Your task to perform on an android device: see tabs open on other devices in the chrome app Image 0: 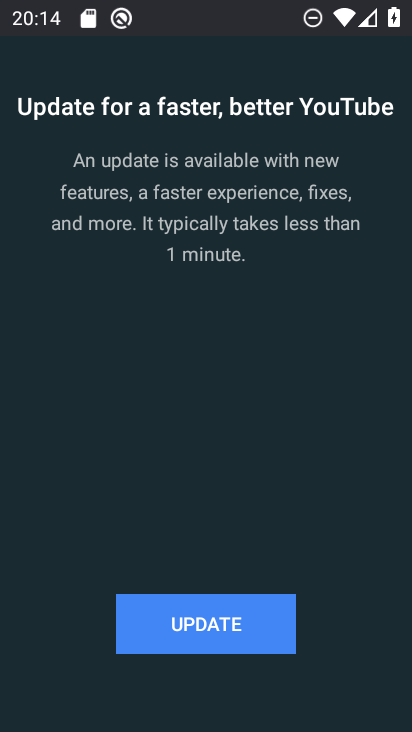
Step 0: press home button
Your task to perform on an android device: see tabs open on other devices in the chrome app Image 1: 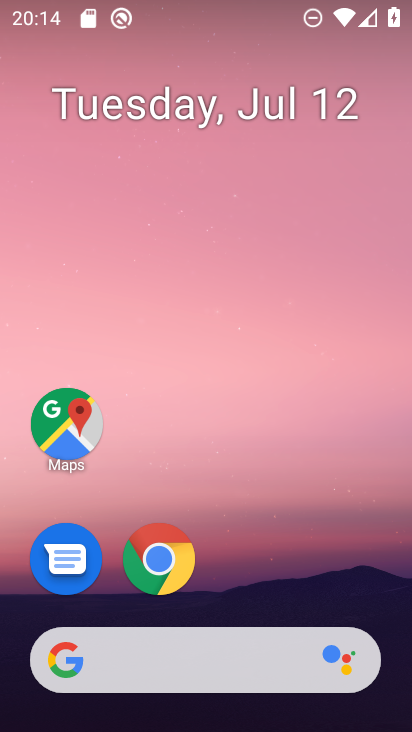
Step 1: drag from (368, 582) to (365, 101)
Your task to perform on an android device: see tabs open on other devices in the chrome app Image 2: 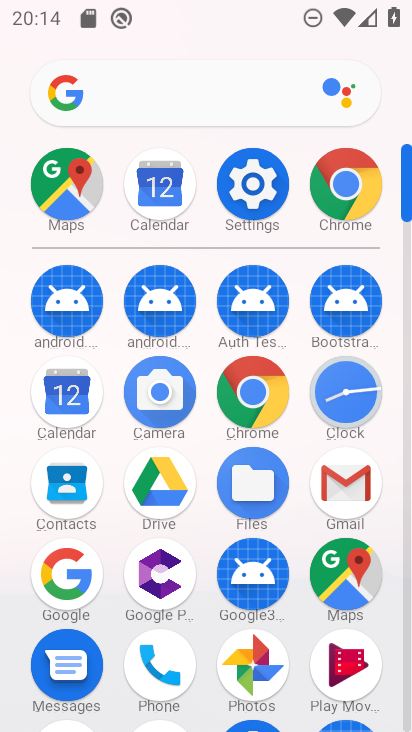
Step 2: click (257, 396)
Your task to perform on an android device: see tabs open on other devices in the chrome app Image 3: 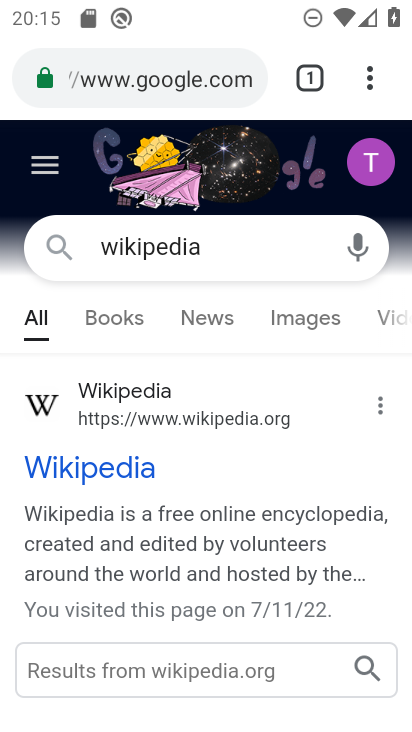
Step 3: click (372, 84)
Your task to perform on an android device: see tabs open on other devices in the chrome app Image 4: 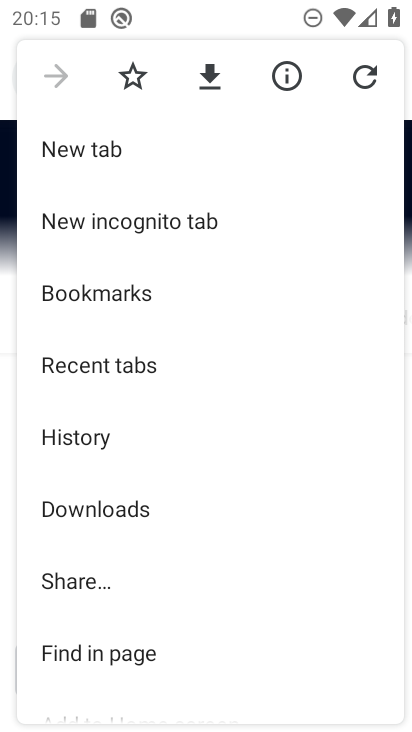
Step 4: drag from (288, 382) to (302, 282)
Your task to perform on an android device: see tabs open on other devices in the chrome app Image 5: 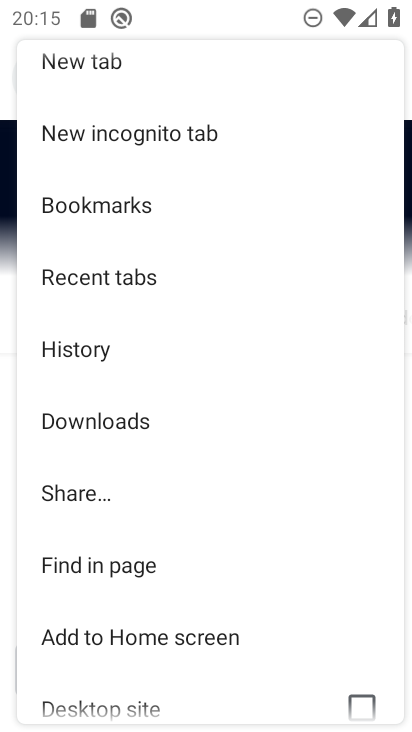
Step 5: drag from (306, 447) to (300, 307)
Your task to perform on an android device: see tabs open on other devices in the chrome app Image 6: 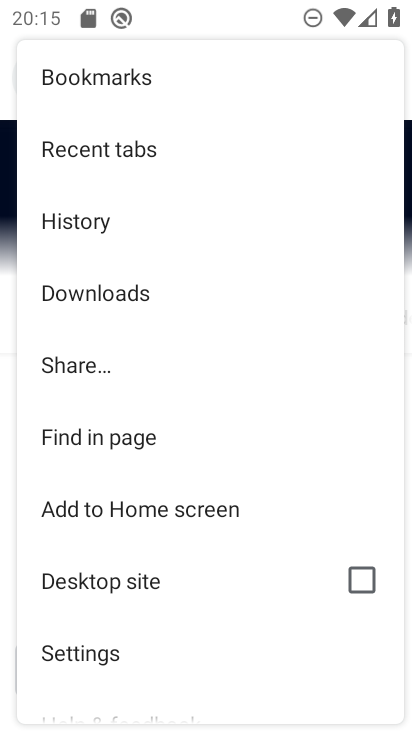
Step 6: drag from (289, 438) to (294, 284)
Your task to perform on an android device: see tabs open on other devices in the chrome app Image 7: 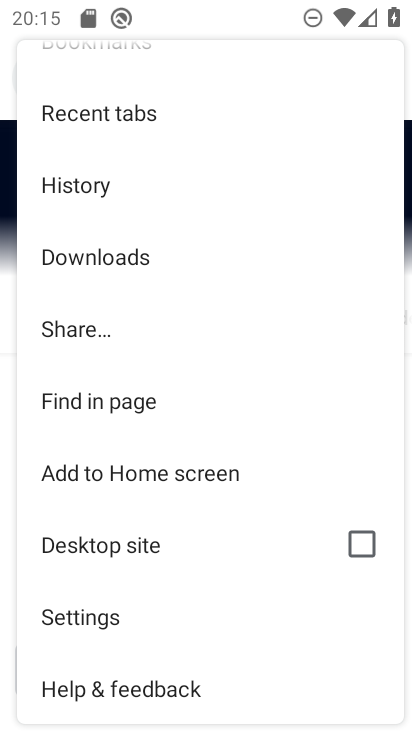
Step 7: drag from (281, 208) to (284, 350)
Your task to perform on an android device: see tabs open on other devices in the chrome app Image 8: 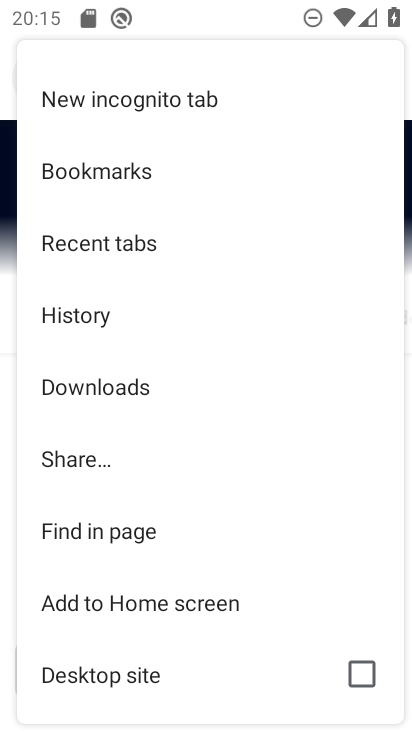
Step 8: drag from (278, 183) to (287, 385)
Your task to perform on an android device: see tabs open on other devices in the chrome app Image 9: 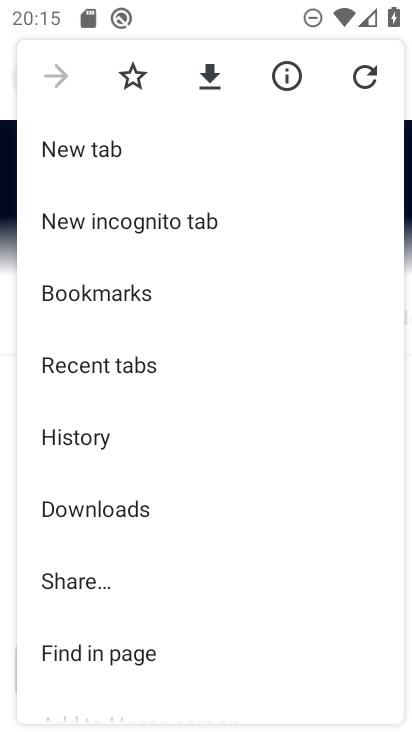
Step 9: click (162, 377)
Your task to perform on an android device: see tabs open on other devices in the chrome app Image 10: 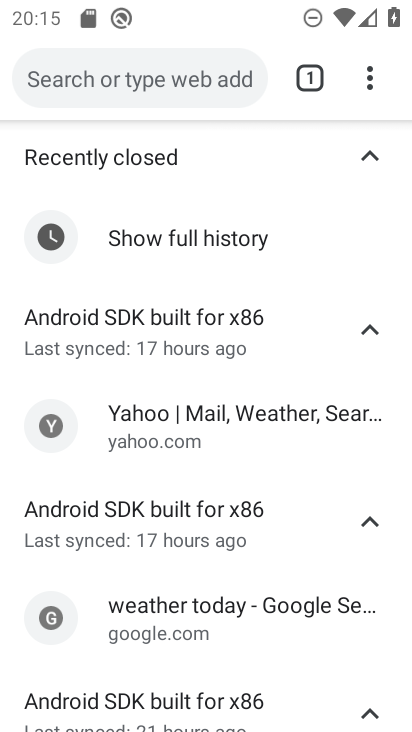
Step 10: click (313, 79)
Your task to perform on an android device: see tabs open on other devices in the chrome app Image 11: 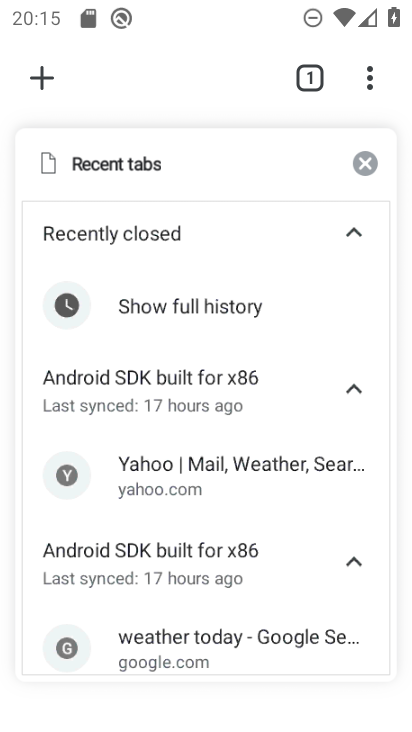
Step 11: task complete